Your task to perform on an android device: Open Google Maps and go to "Timeline" Image 0: 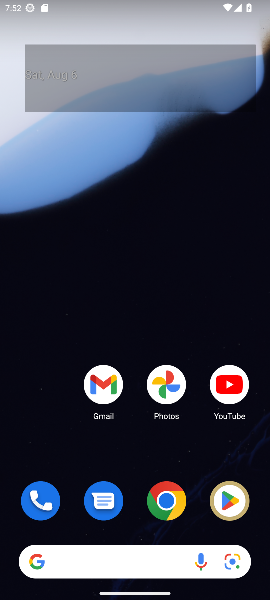
Step 0: click (227, 510)
Your task to perform on an android device: Open Google Maps and go to "Timeline" Image 1: 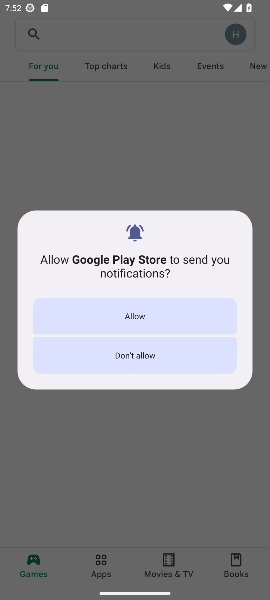
Step 1: press home button
Your task to perform on an android device: Open Google Maps and go to "Timeline" Image 2: 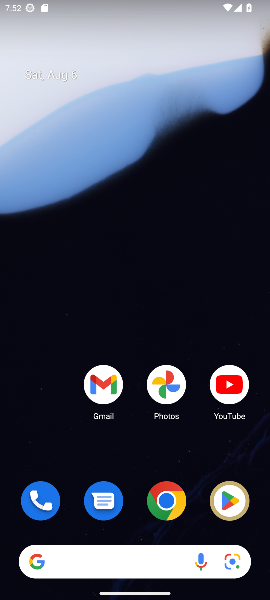
Step 2: drag from (31, 567) to (145, 176)
Your task to perform on an android device: Open Google Maps and go to "Timeline" Image 3: 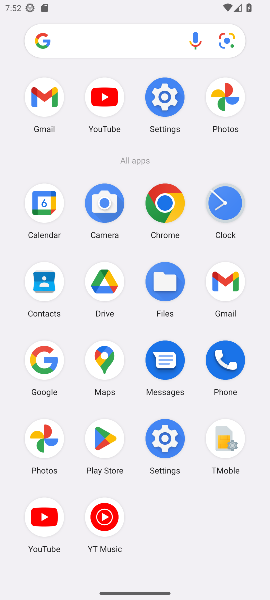
Step 3: click (111, 363)
Your task to perform on an android device: Open Google Maps and go to "Timeline" Image 4: 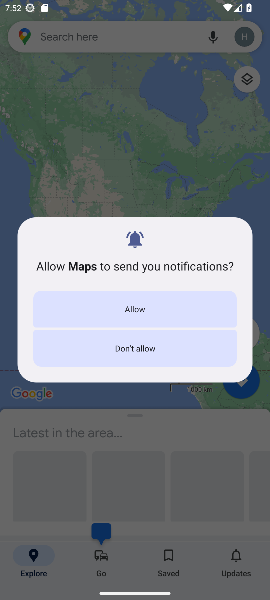
Step 4: click (123, 308)
Your task to perform on an android device: Open Google Maps and go to "Timeline" Image 5: 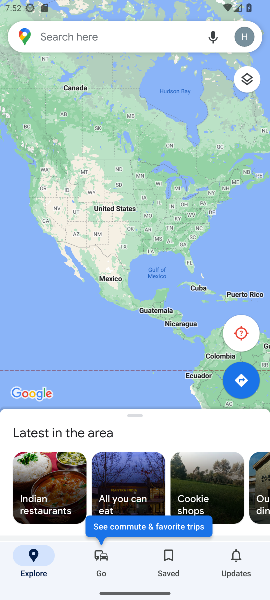
Step 5: click (141, 45)
Your task to perform on an android device: Open Google Maps and go to "Timeline" Image 6: 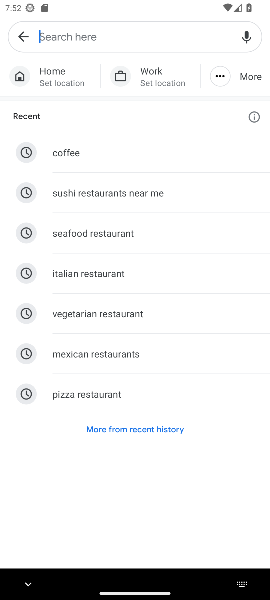
Step 6: click (30, 36)
Your task to perform on an android device: Open Google Maps and go to "Timeline" Image 7: 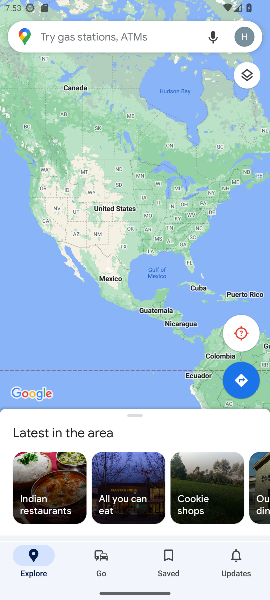
Step 7: click (65, 41)
Your task to perform on an android device: Open Google Maps and go to "Timeline" Image 8: 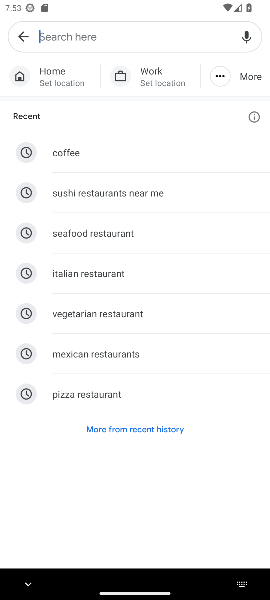
Step 8: task complete